Your task to perform on an android device: Open network settings Image 0: 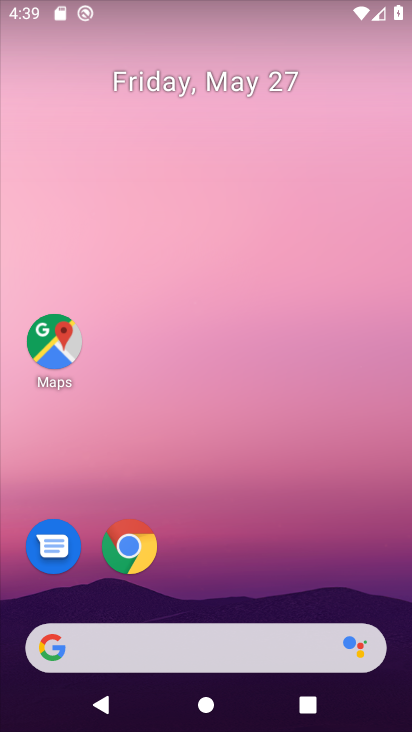
Step 0: click (229, 33)
Your task to perform on an android device: Open network settings Image 1: 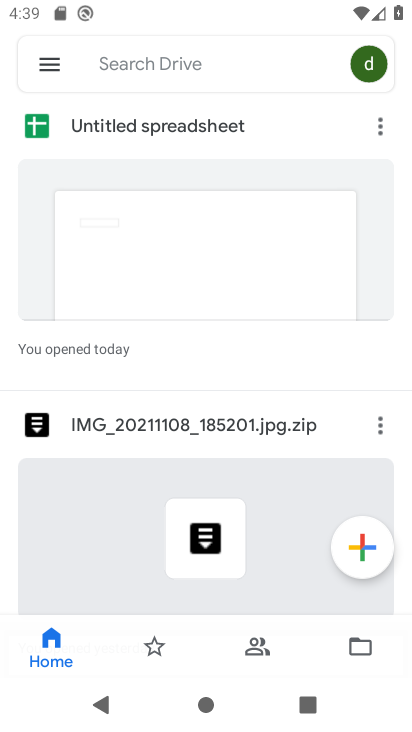
Step 1: press back button
Your task to perform on an android device: Open network settings Image 2: 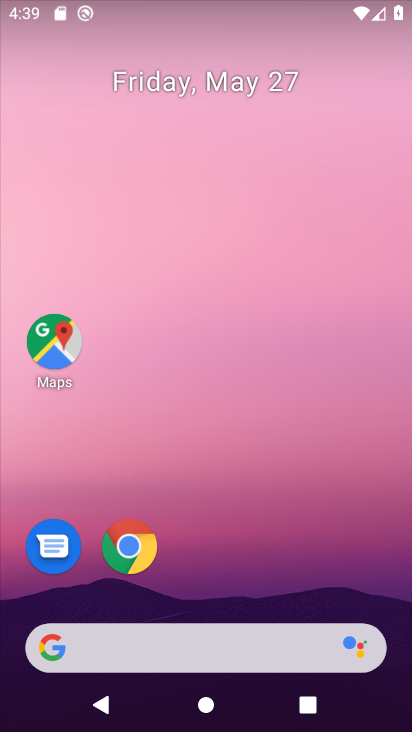
Step 2: drag from (280, 534) to (251, 33)
Your task to perform on an android device: Open network settings Image 3: 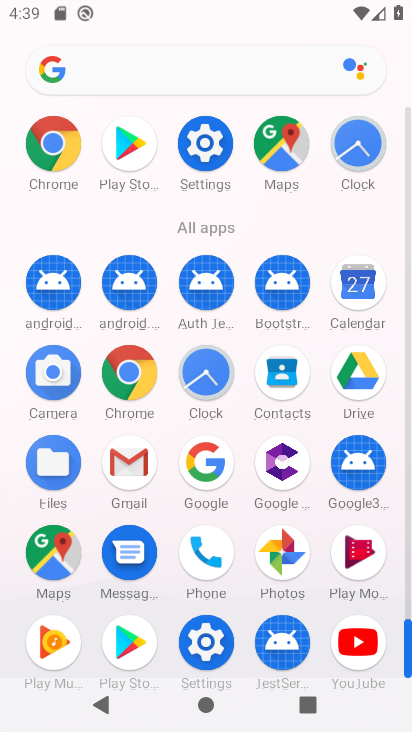
Step 3: drag from (8, 540) to (21, 292)
Your task to perform on an android device: Open network settings Image 4: 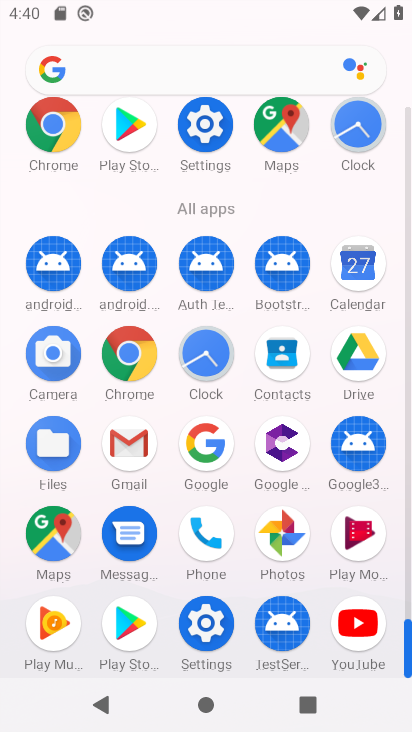
Step 4: click (209, 623)
Your task to perform on an android device: Open network settings Image 5: 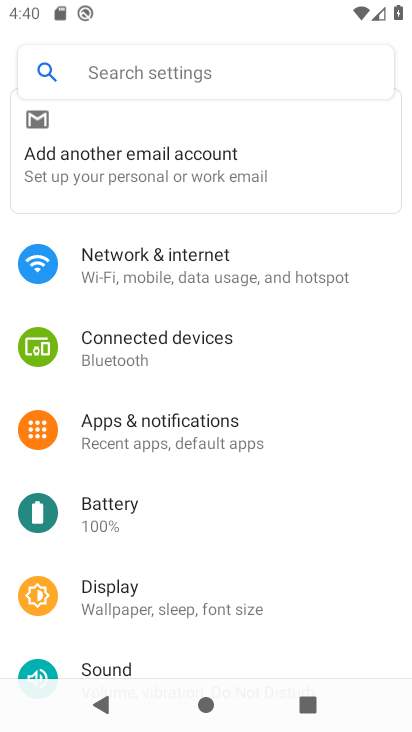
Step 5: click (184, 254)
Your task to perform on an android device: Open network settings Image 6: 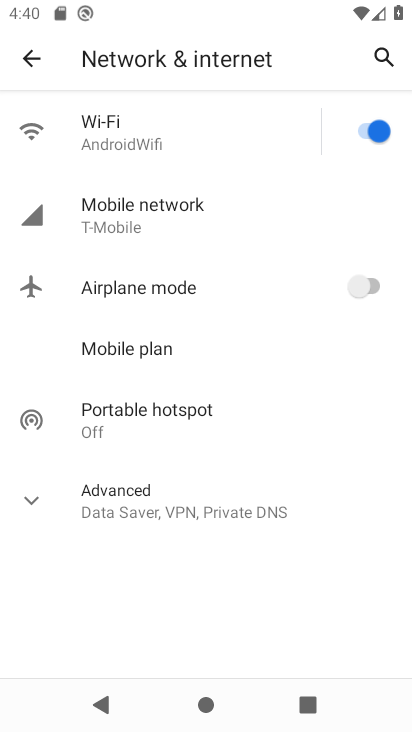
Step 6: click (29, 492)
Your task to perform on an android device: Open network settings Image 7: 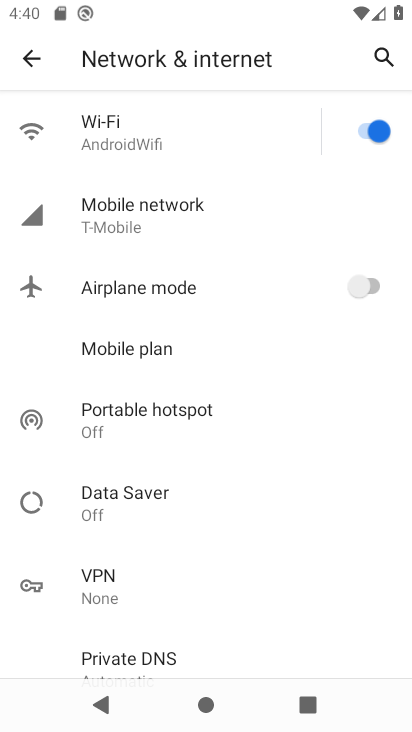
Step 7: task complete